Your task to perform on an android device: turn off wifi Image 0: 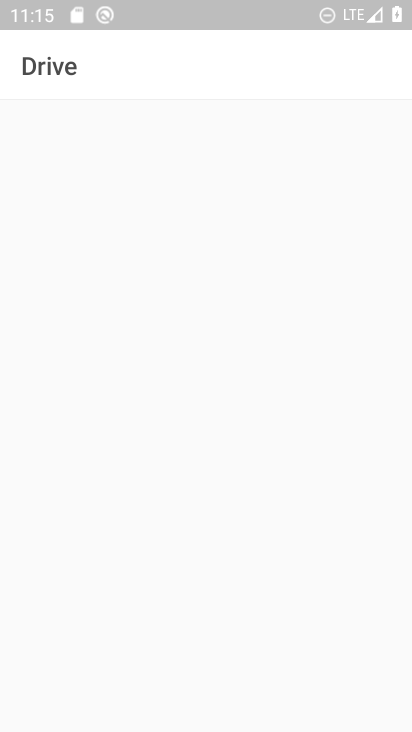
Step 0: press home button
Your task to perform on an android device: turn off wifi Image 1: 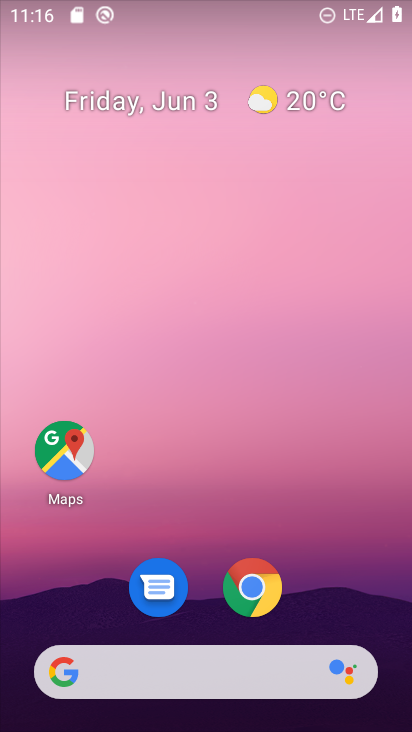
Step 1: drag from (309, 458) to (217, 68)
Your task to perform on an android device: turn off wifi Image 2: 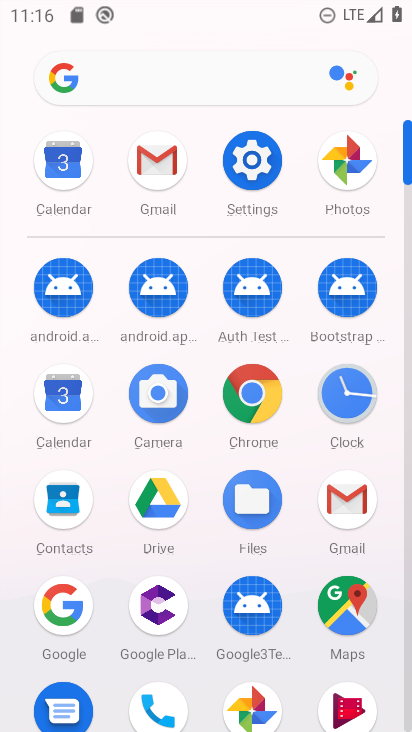
Step 2: click (259, 166)
Your task to perform on an android device: turn off wifi Image 3: 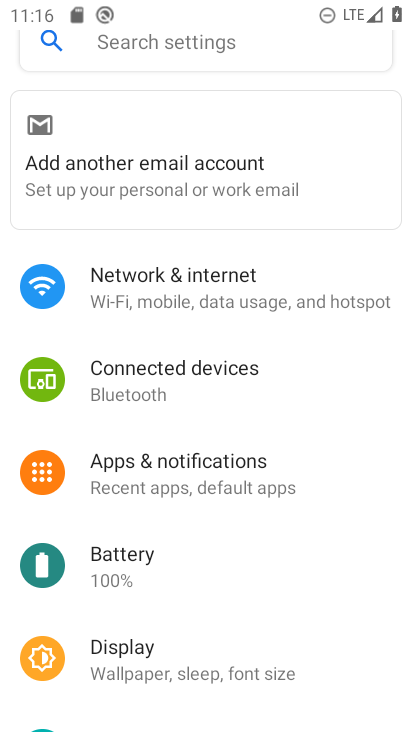
Step 3: click (235, 271)
Your task to perform on an android device: turn off wifi Image 4: 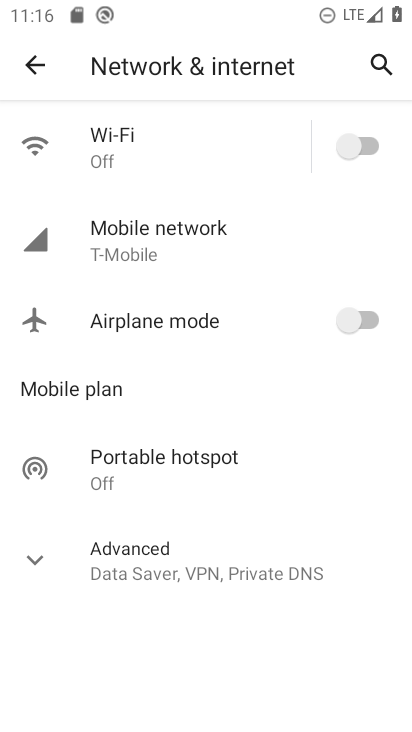
Step 4: click (212, 124)
Your task to perform on an android device: turn off wifi Image 5: 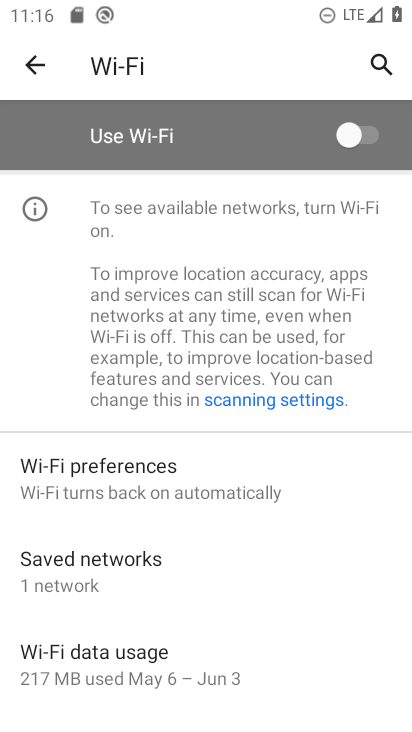
Step 5: task complete